Your task to perform on an android device: Toggle the flashlight Image 0: 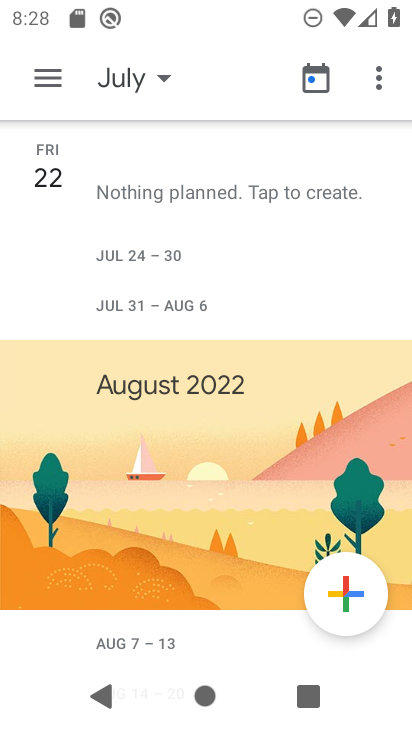
Step 0: press home button
Your task to perform on an android device: Toggle the flashlight Image 1: 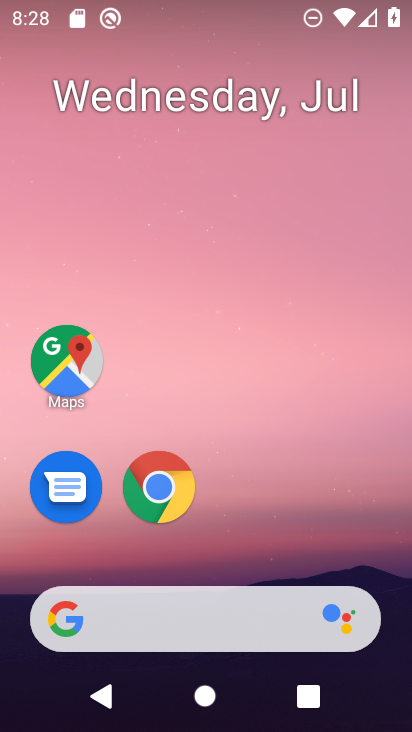
Step 1: drag from (238, 4) to (237, 361)
Your task to perform on an android device: Toggle the flashlight Image 2: 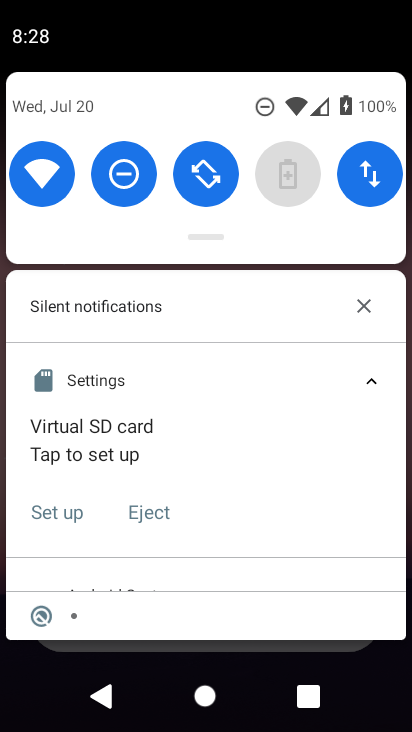
Step 2: drag from (229, 116) to (239, 333)
Your task to perform on an android device: Toggle the flashlight Image 3: 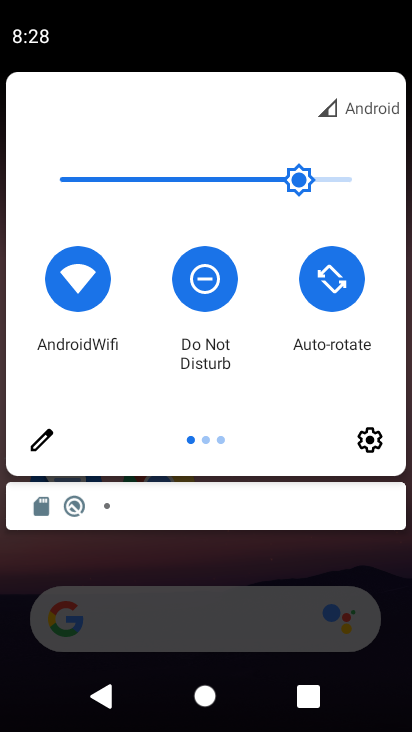
Step 3: click (46, 438)
Your task to perform on an android device: Toggle the flashlight Image 4: 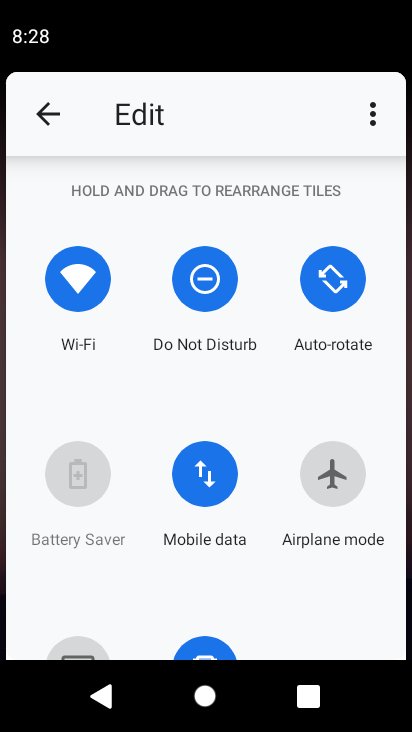
Step 4: task complete